Your task to perform on an android device: all mails in gmail Image 0: 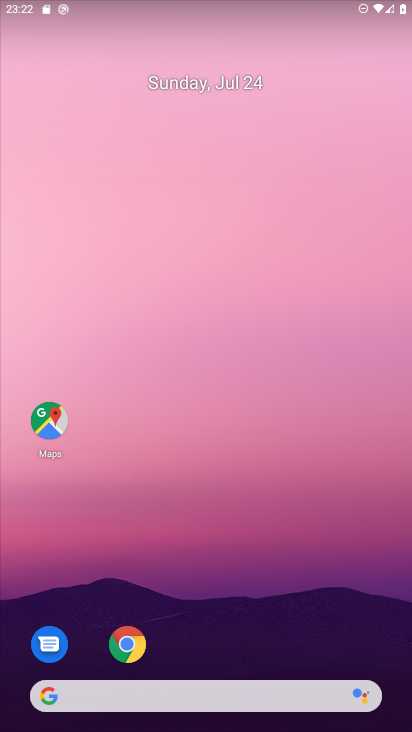
Step 0: drag from (391, 642) to (352, 111)
Your task to perform on an android device: all mails in gmail Image 1: 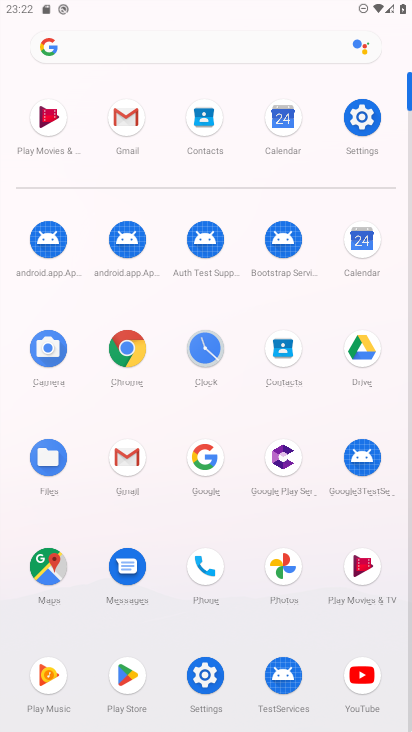
Step 1: click (127, 458)
Your task to perform on an android device: all mails in gmail Image 2: 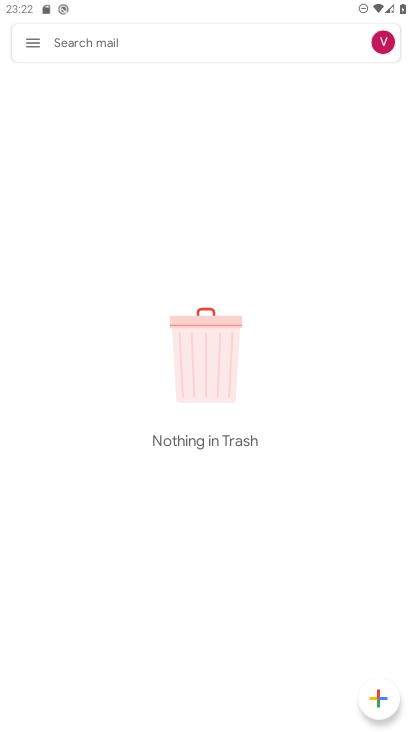
Step 2: click (33, 41)
Your task to perform on an android device: all mails in gmail Image 3: 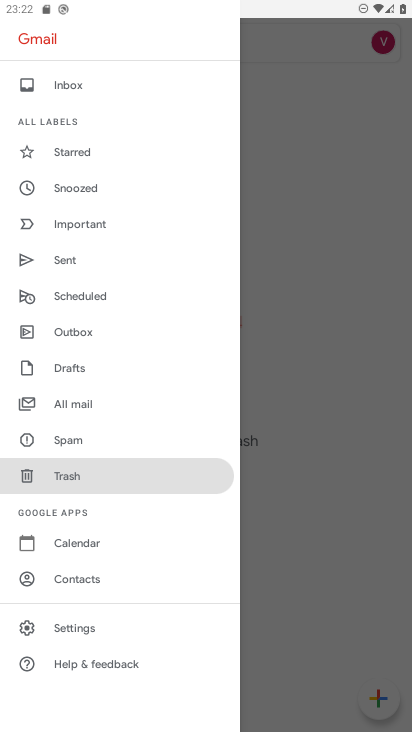
Step 3: click (87, 403)
Your task to perform on an android device: all mails in gmail Image 4: 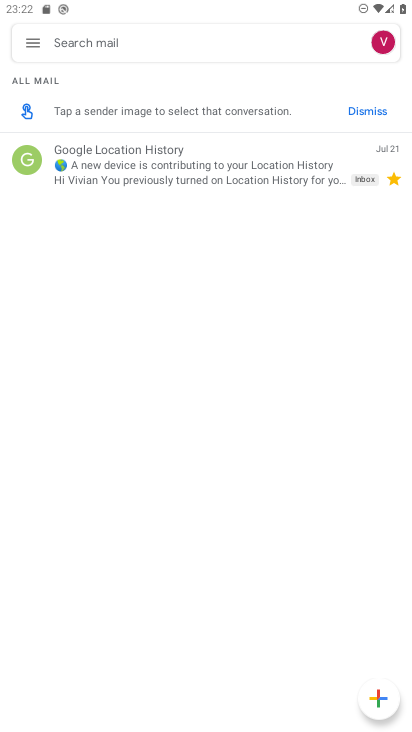
Step 4: task complete